Your task to perform on an android device: turn on location history Image 0: 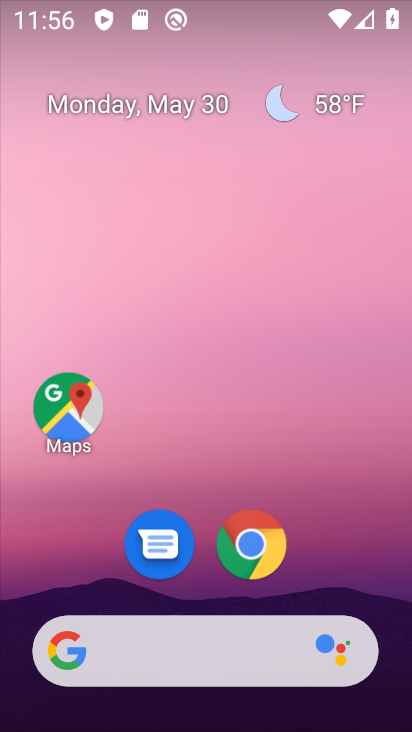
Step 0: task complete